Your task to perform on an android device: Go to accessibility settings Image 0: 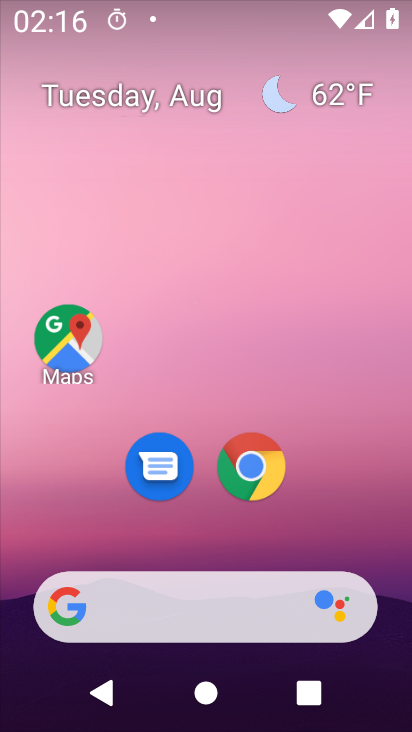
Step 0: press home button
Your task to perform on an android device: Go to accessibility settings Image 1: 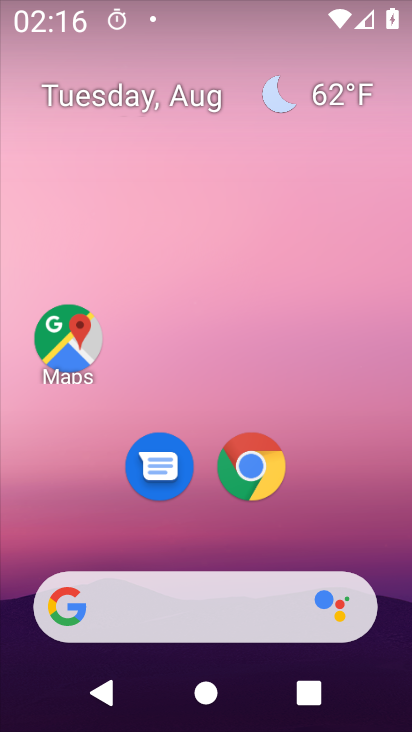
Step 1: drag from (376, 566) to (377, 155)
Your task to perform on an android device: Go to accessibility settings Image 2: 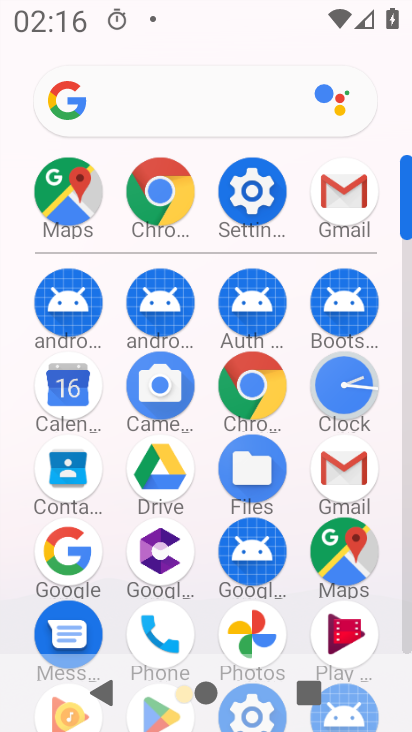
Step 2: click (253, 191)
Your task to perform on an android device: Go to accessibility settings Image 3: 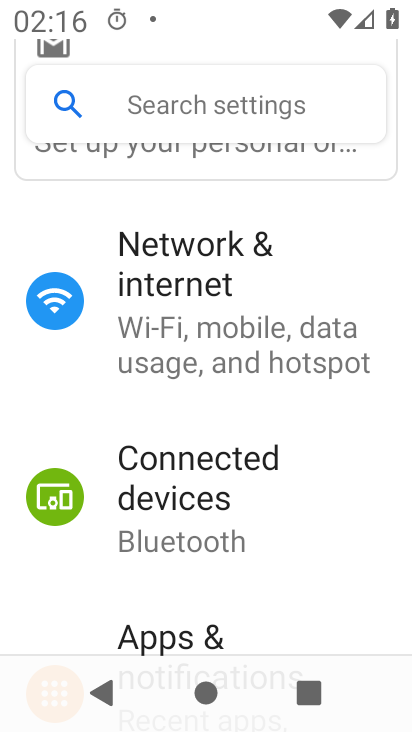
Step 3: drag from (373, 531) to (376, 396)
Your task to perform on an android device: Go to accessibility settings Image 4: 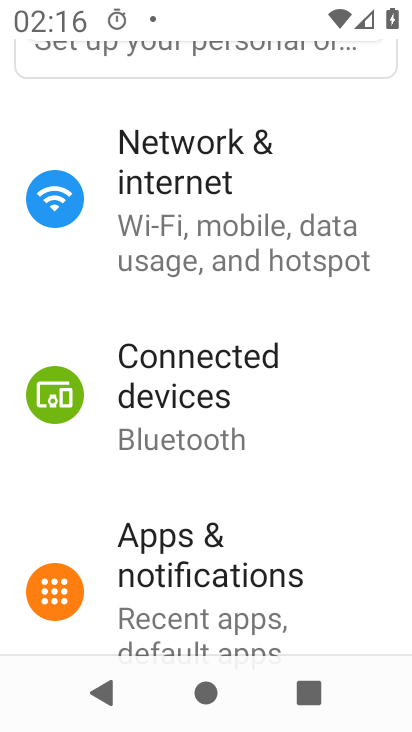
Step 4: drag from (352, 568) to (367, 436)
Your task to perform on an android device: Go to accessibility settings Image 5: 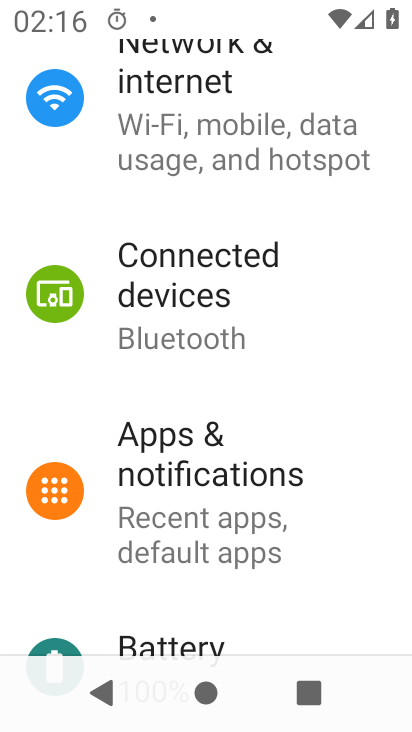
Step 5: drag from (354, 567) to (365, 435)
Your task to perform on an android device: Go to accessibility settings Image 6: 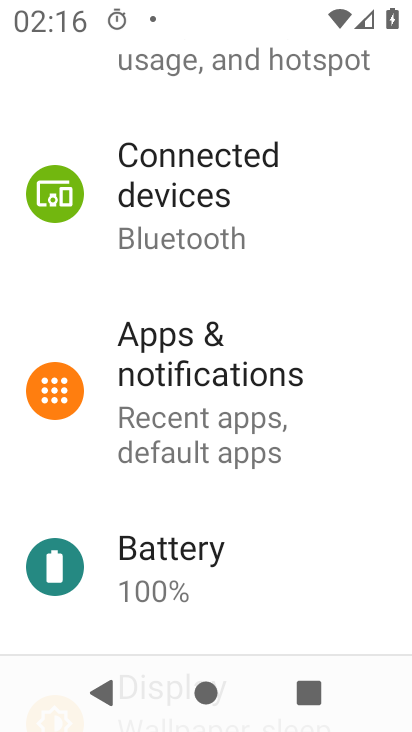
Step 6: drag from (355, 558) to (364, 433)
Your task to perform on an android device: Go to accessibility settings Image 7: 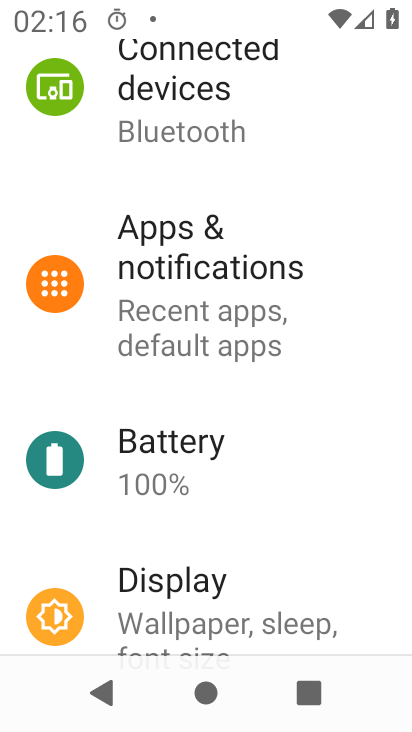
Step 7: drag from (369, 587) to (364, 465)
Your task to perform on an android device: Go to accessibility settings Image 8: 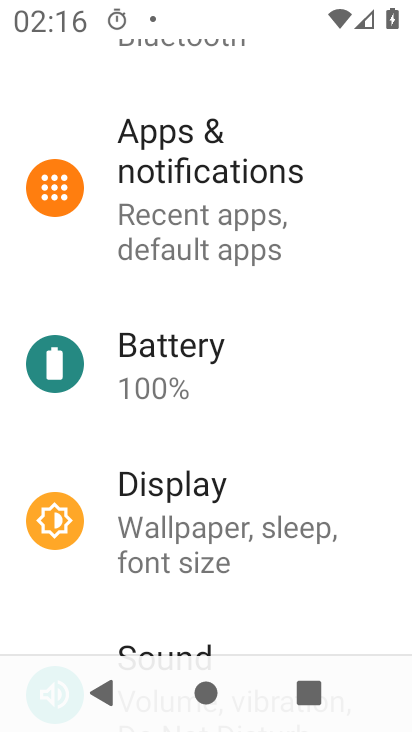
Step 8: drag from (360, 598) to (357, 478)
Your task to perform on an android device: Go to accessibility settings Image 9: 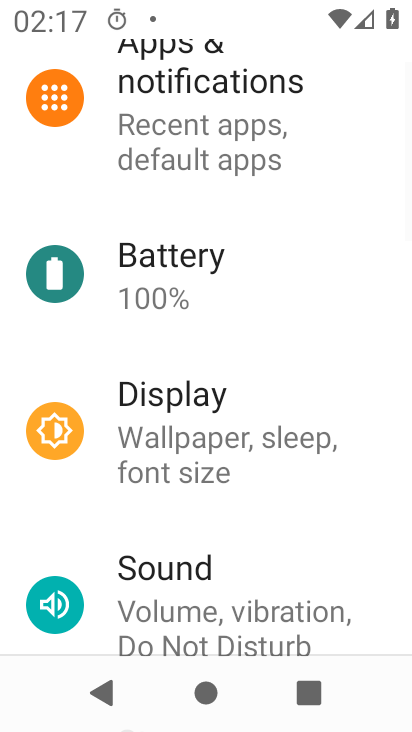
Step 9: drag from (369, 602) to (364, 443)
Your task to perform on an android device: Go to accessibility settings Image 10: 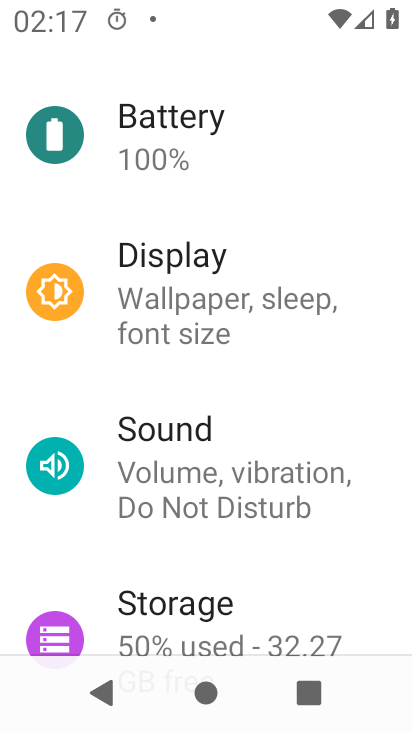
Step 10: drag from (365, 570) to (369, 425)
Your task to perform on an android device: Go to accessibility settings Image 11: 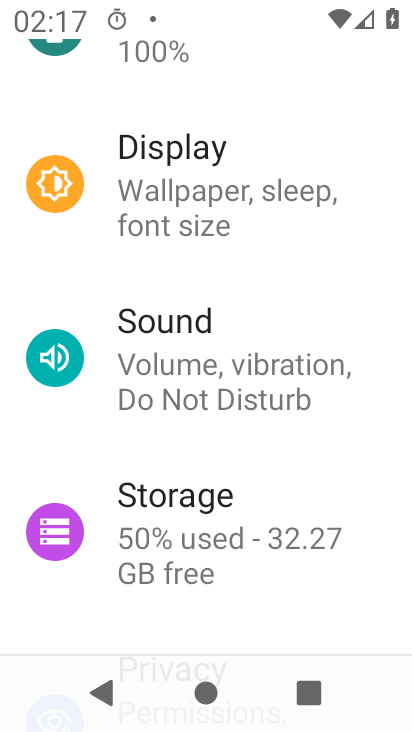
Step 11: drag from (360, 584) to (363, 427)
Your task to perform on an android device: Go to accessibility settings Image 12: 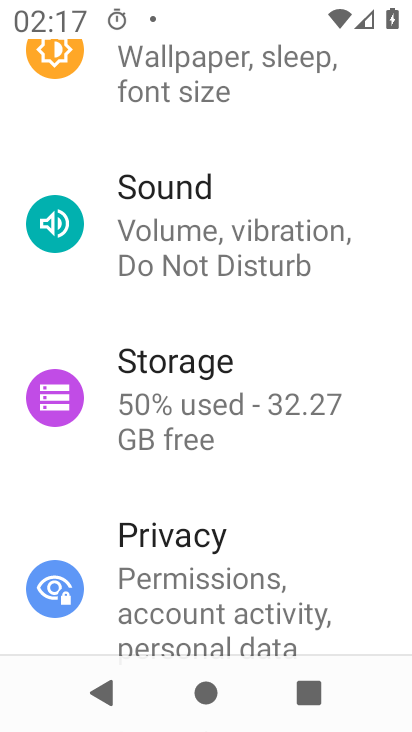
Step 12: drag from (353, 558) to (364, 377)
Your task to perform on an android device: Go to accessibility settings Image 13: 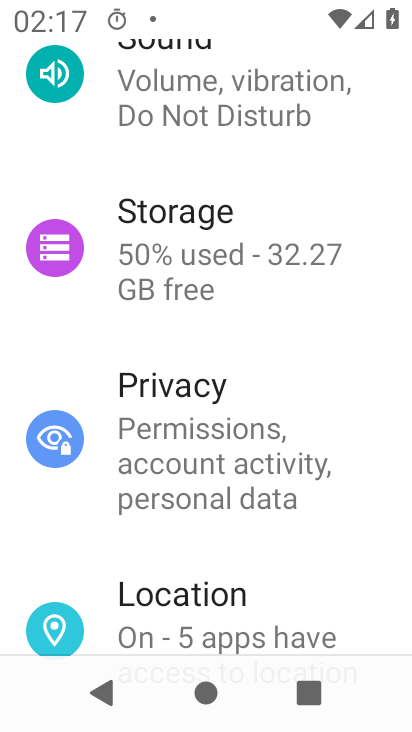
Step 13: drag from (368, 582) to (368, 414)
Your task to perform on an android device: Go to accessibility settings Image 14: 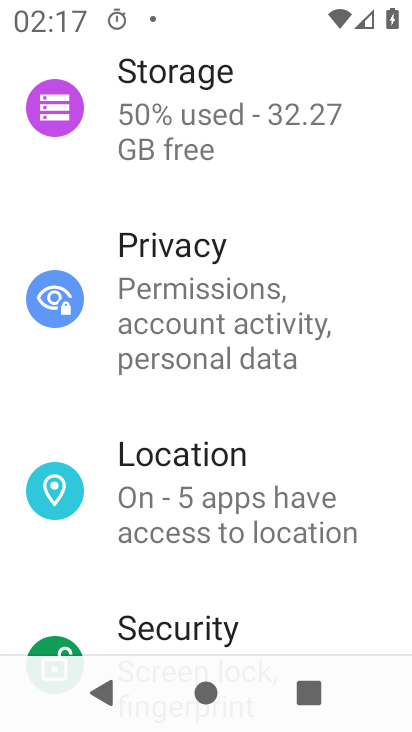
Step 14: drag from (342, 612) to (358, 403)
Your task to perform on an android device: Go to accessibility settings Image 15: 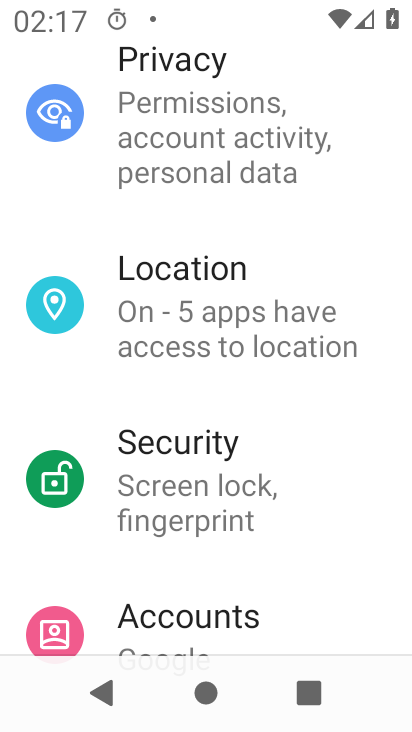
Step 15: drag from (360, 596) to (359, 394)
Your task to perform on an android device: Go to accessibility settings Image 16: 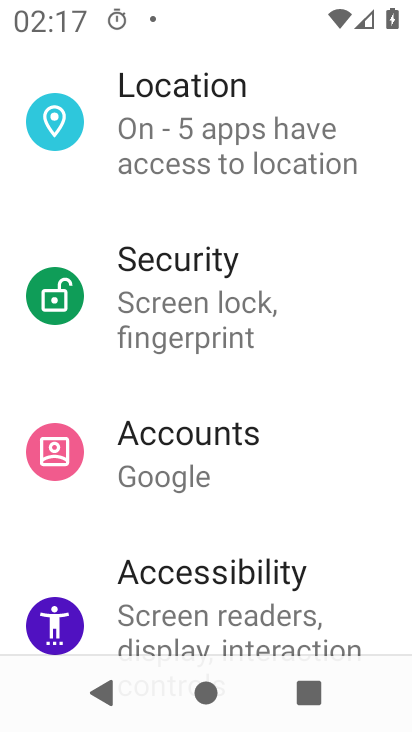
Step 16: drag from (364, 612) to (368, 463)
Your task to perform on an android device: Go to accessibility settings Image 17: 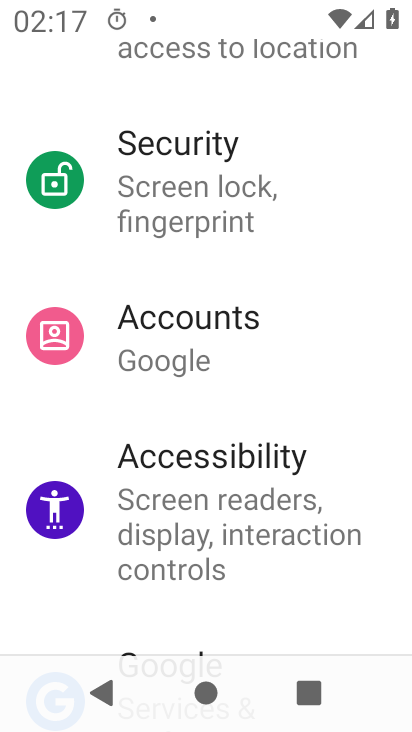
Step 17: click (260, 480)
Your task to perform on an android device: Go to accessibility settings Image 18: 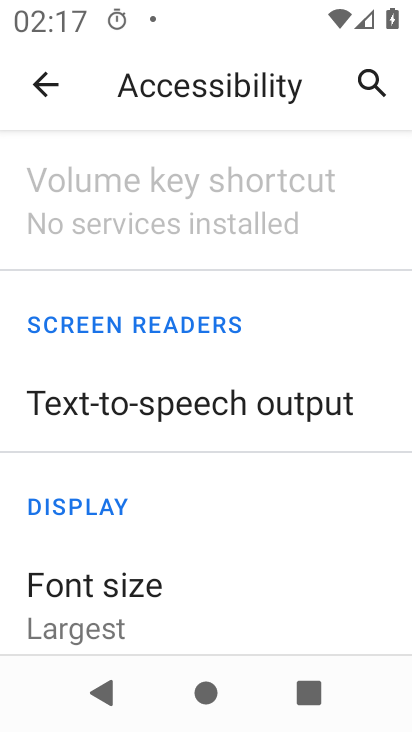
Step 18: task complete